Your task to perform on an android device: turn off smart reply in the gmail app Image 0: 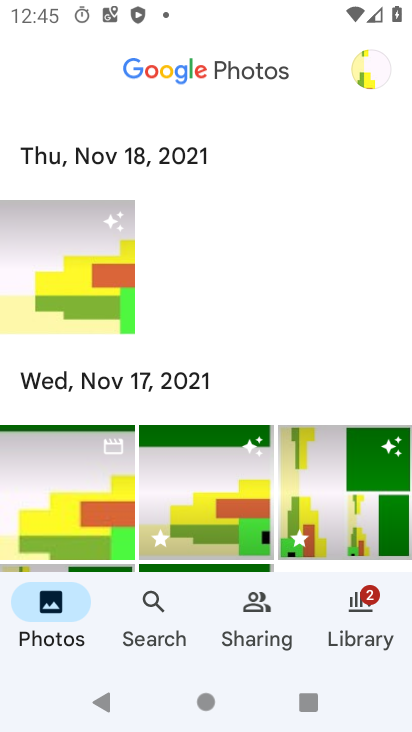
Step 0: press home button
Your task to perform on an android device: turn off smart reply in the gmail app Image 1: 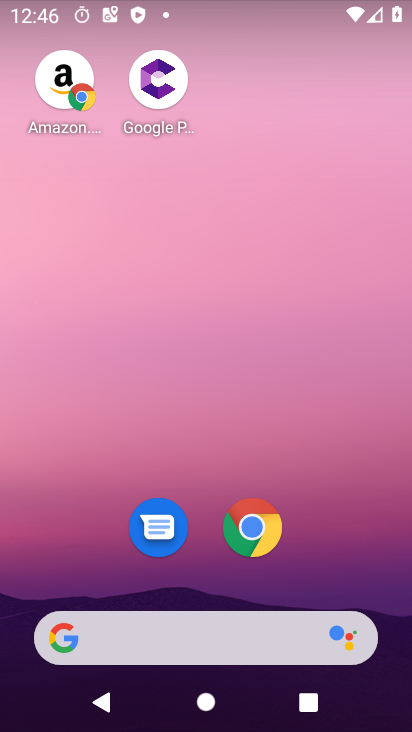
Step 1: drag from (325, 662) to (355, 161)
Your task to perform on an android device: turn off smart reply in the gmail app Image 2: 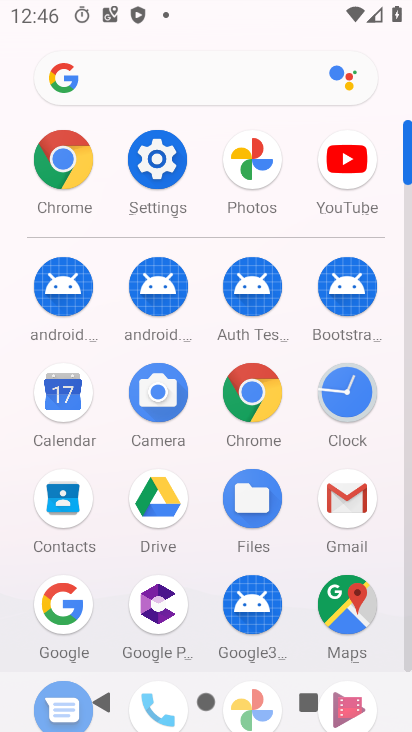
Step 2: click (339, 508)
Your task to perform on an android device: turn off smart reply in the gmail app Image 3: 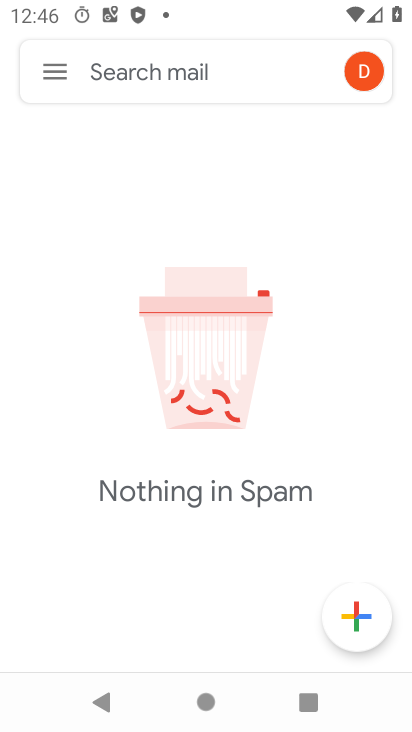
Step 3: click (55, 74)
Your task to perform on an android device: turn off smart reply in the gmail app Image 4: 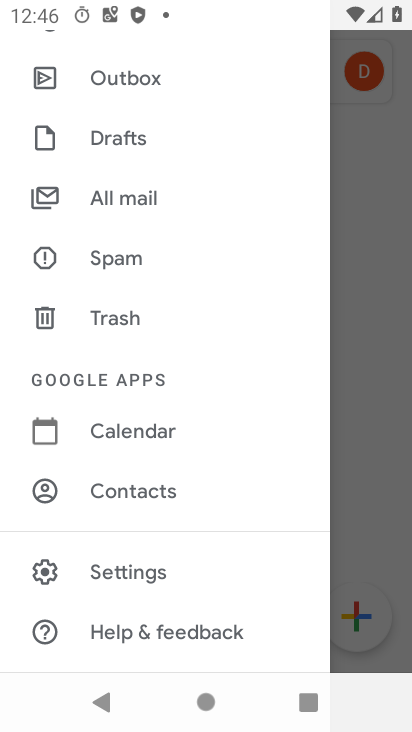
Step 4: click (145, 573)
Your task to perform on an android device: turn off smart reply in the gmail app Image 5: 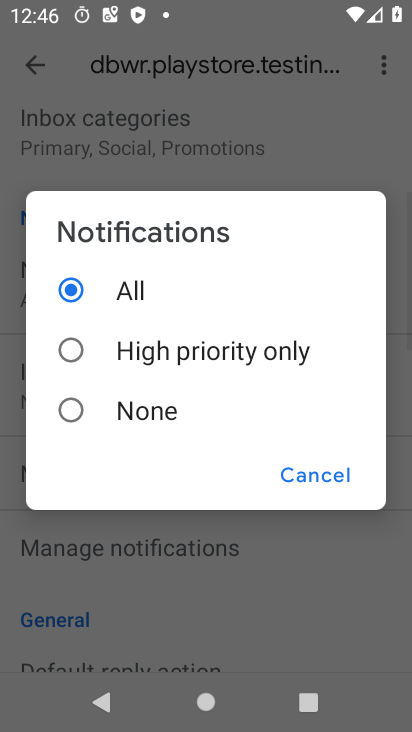
Step 5: click (300, 474)
Your task to perform on an android device: turn off smart reply in the gmail app Image 6: 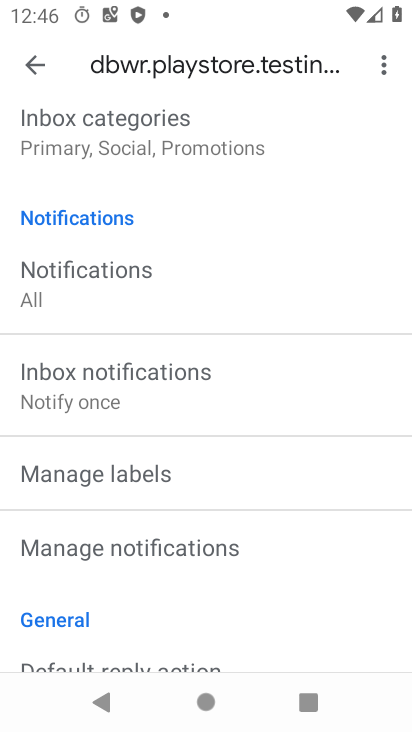
Step 6: drag from (295, 519) to (376, 123)
Your task to perform on an android device: turn off smart reply in the gmail app Image 7: 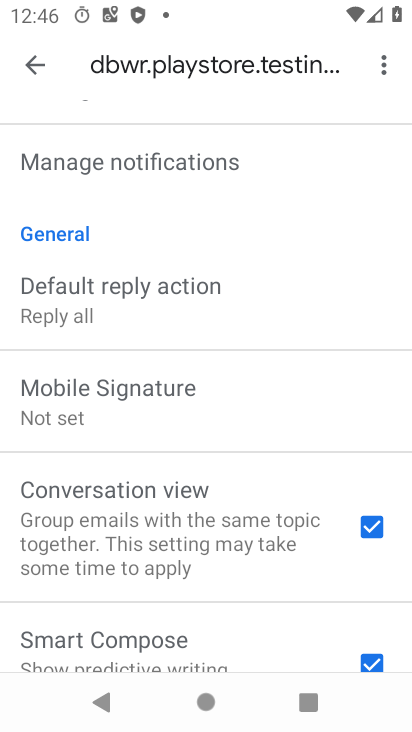
Step 7: drag from (205, 581) to (234, 260)
Your task to perform on an android device: turn off smart reply in the gmail app Image 8: 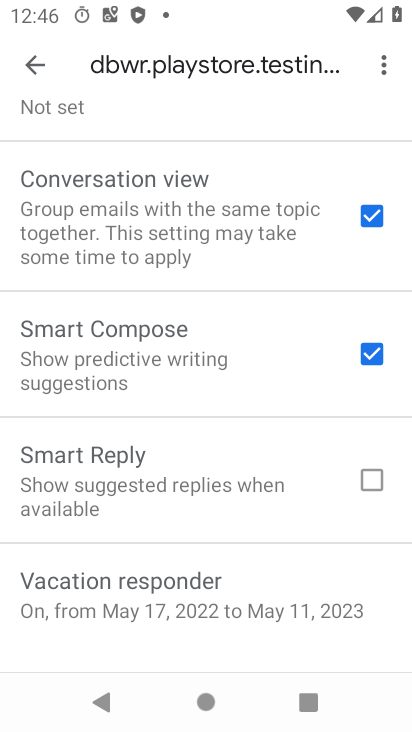
Step 8: click (364, 485)
Your task to perform on an android device: turn off smart reply in the gmail app Image 9: 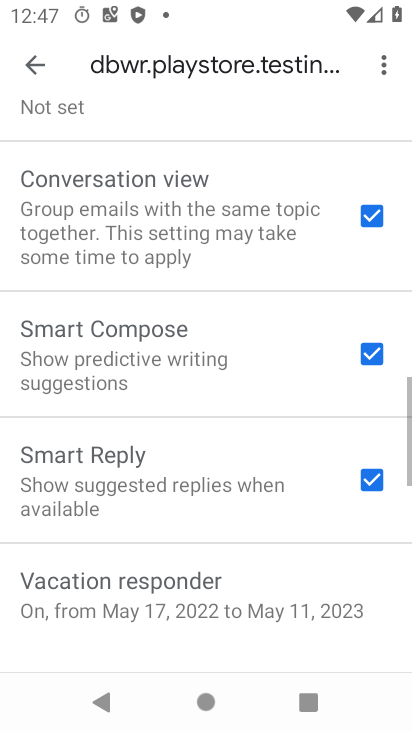
Step 9: click (364, 485)
Your task to perform on an android device: turn off smart reply in the gmail app Image 10: 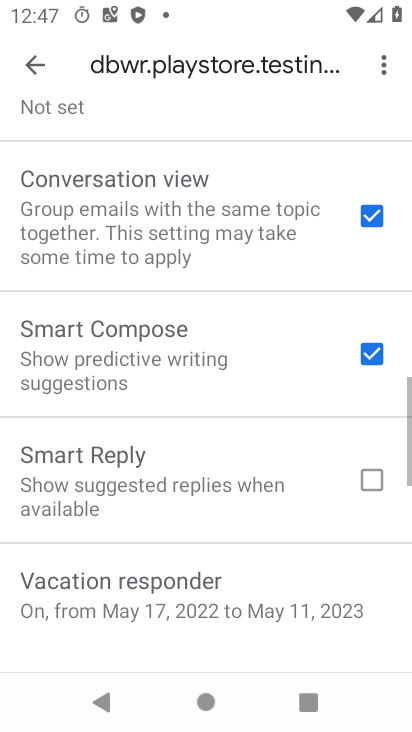
Step 10: task complete